Your task to perform on an android device: Search for pizza restaurants on Maps Image 0: 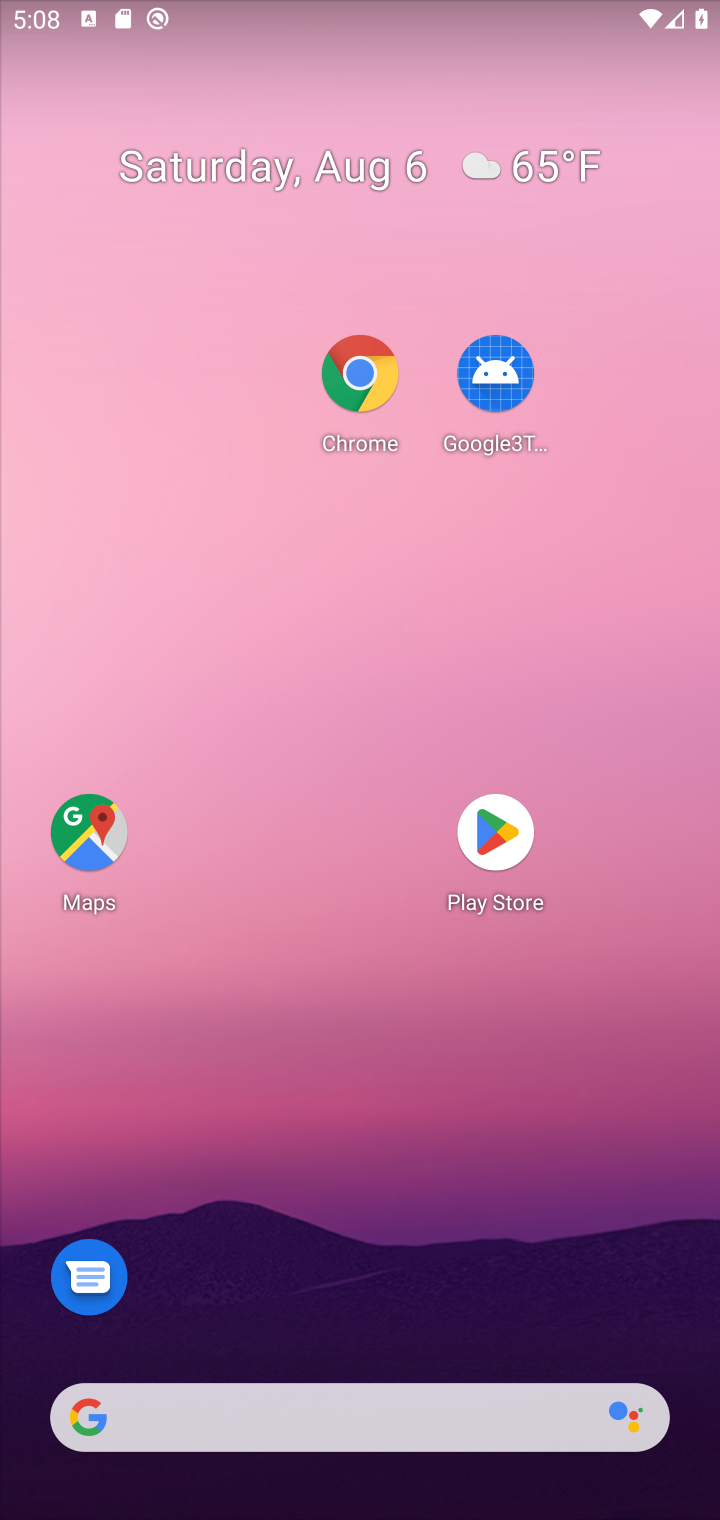
Step 0: drag from (470, 1412) to (460, 471)
Your task to perform on an android device: Search for pizza restaurants on Maps Image 1: 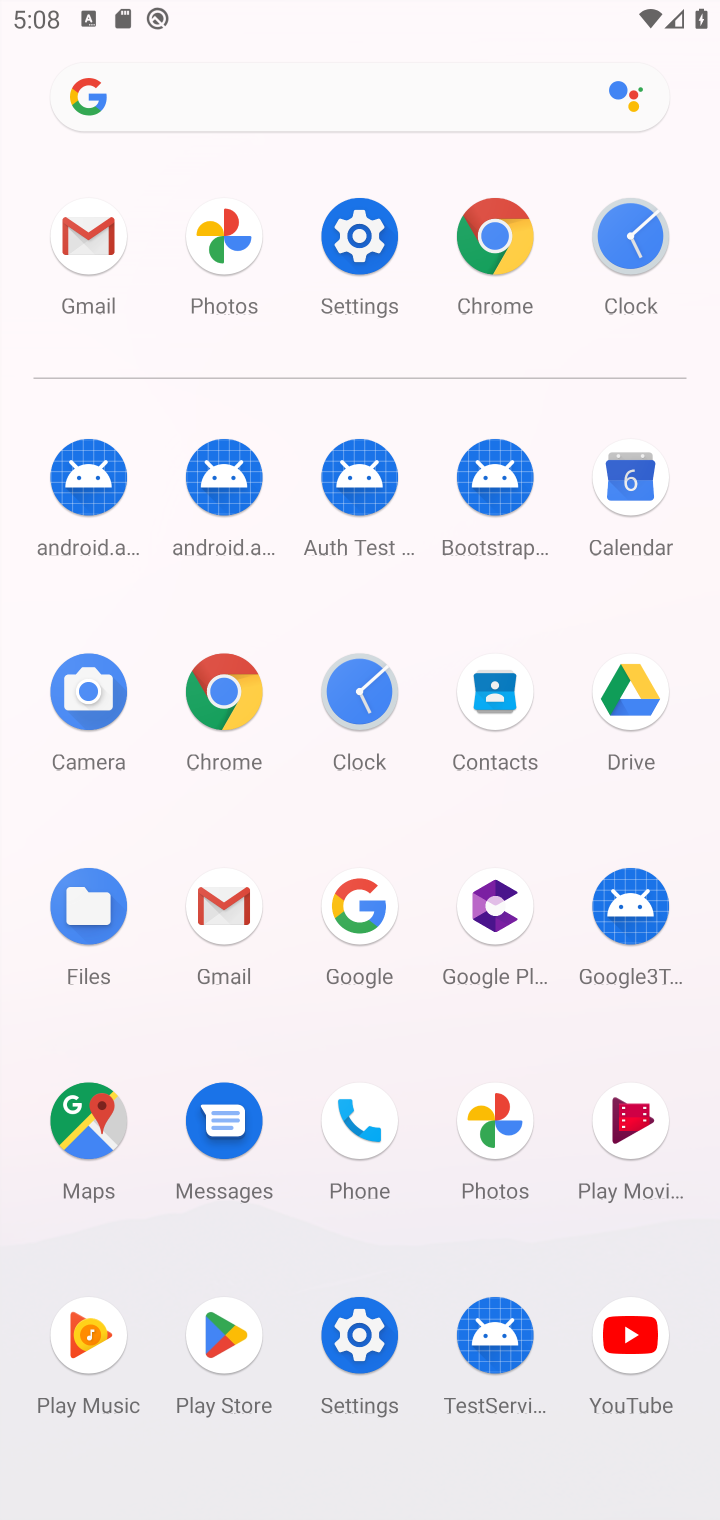
Step 1: click (103, 1139)
Your task to perform on an android device: Search for pizza restaurants on Maps Image 2: 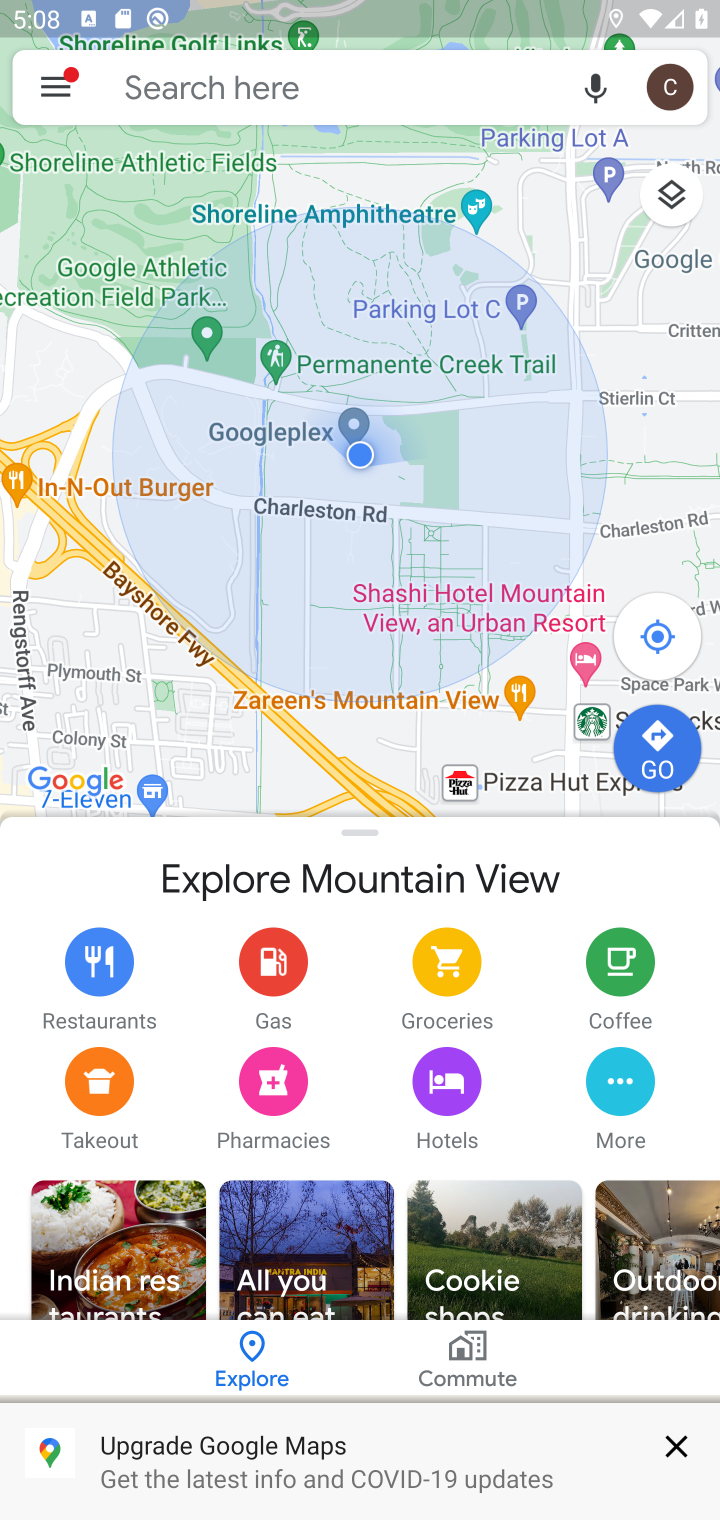
Step 2: click (460, 63)
Your task to perform on an android device: Search for pizza restaurants on Maps Image 3: 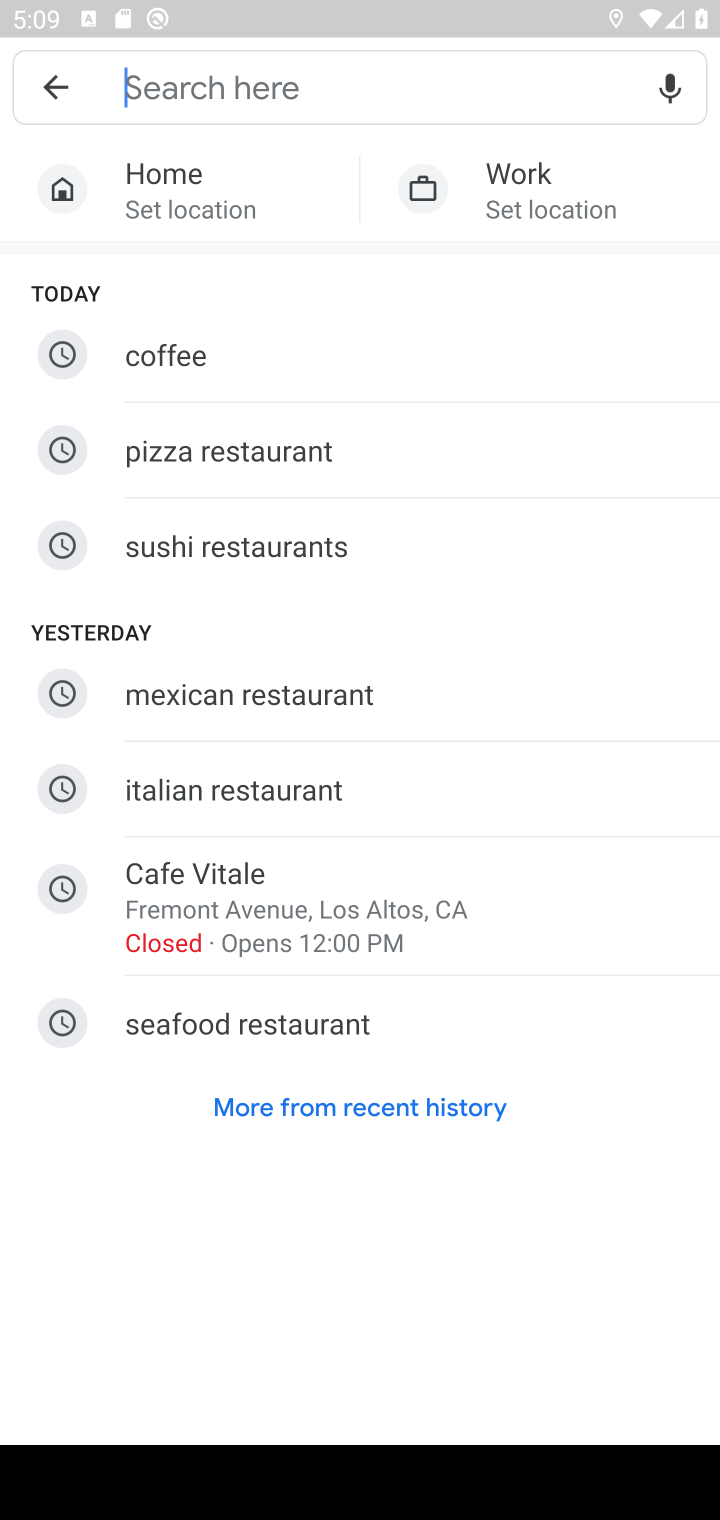
Step 3: click (428, 429)
Your task to perform on an android device: Search for pizza restaurants on Maps Image 4: 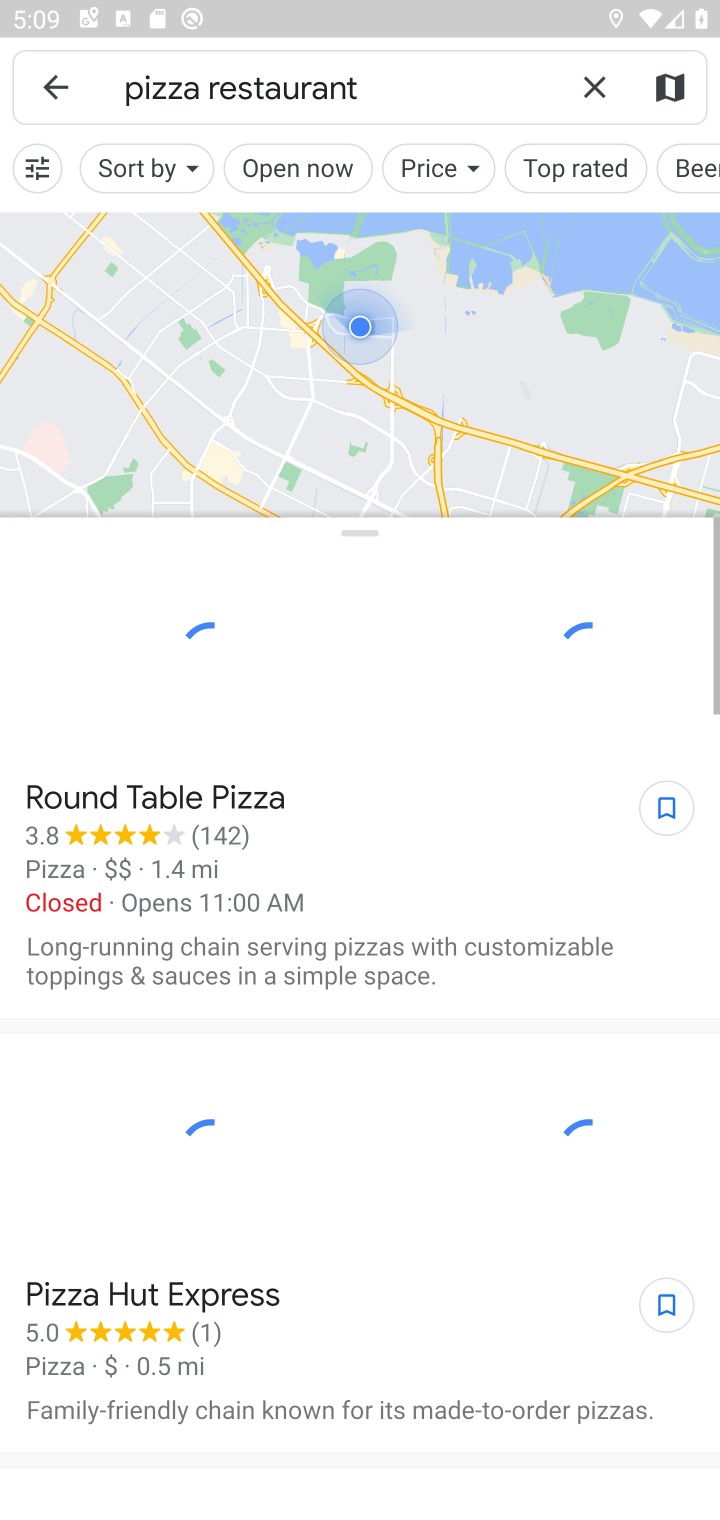
Step 4: task complete